Your task to perform on an android device: check out phone information Image 0: 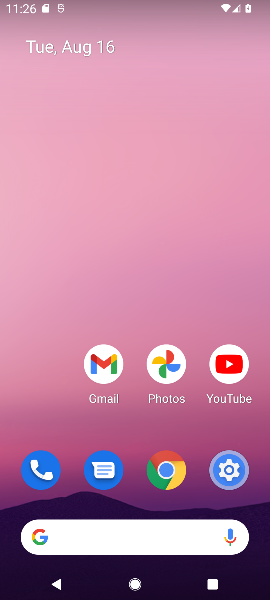
Step 0: drag from (41, 391) to (53, 0)
Your task to perform on an android device: check out phone information Image 1: 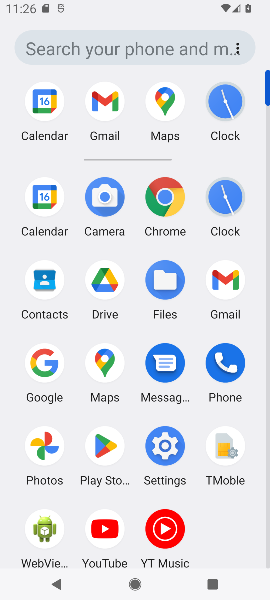
Step 1: click (223, 368)
Your task to perform on an android device: check out phone information Image 2: 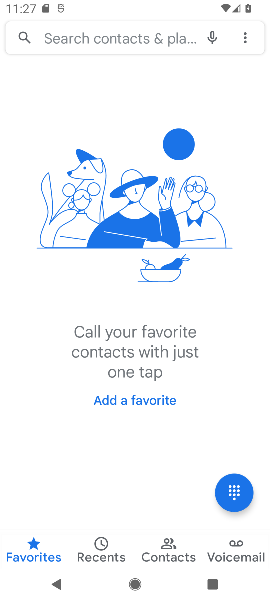
Step 2: click (246, 34)
Your task to perform on an android device: check out phone information Image 3: 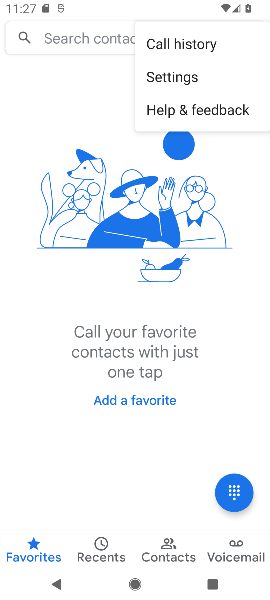
Step 3: click (200, 73)
Your task to perform on an android device: check out phone information Image 4: 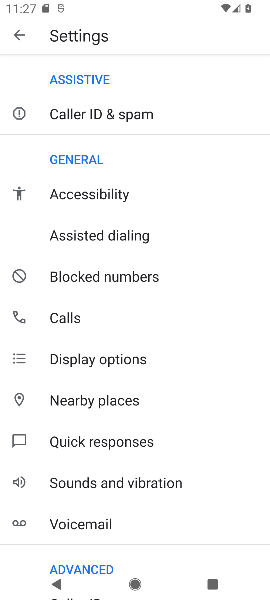
Step 4: drag from (198, 457) to (211, 27)
Your task to perform on an android device: check out phone information Image 5: 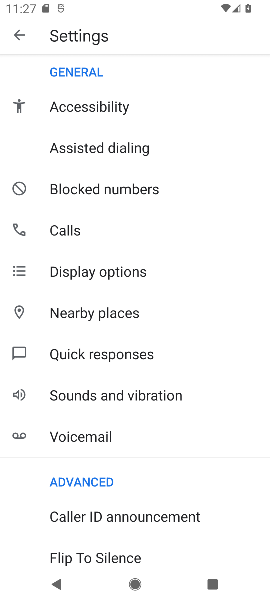
Step 5: drag from (180, 112) to (192, 457)
Your task to perform on an android device: check out phone information Image 6: 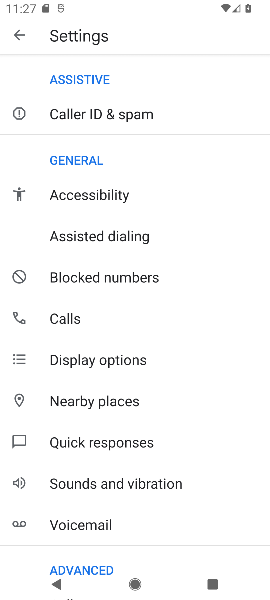
Step 6: click (112, 186)
Your task to perform on an android device: check out phone information Image 7: 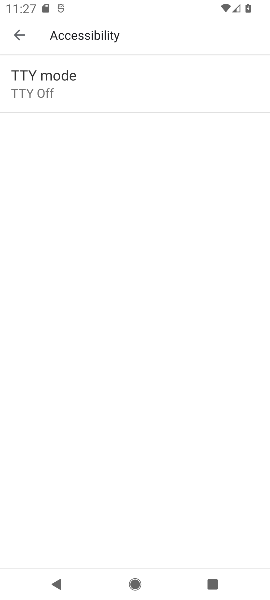
Step 7: click (19, 32)
Your task to perform on an android device: check out phone information Image 8: 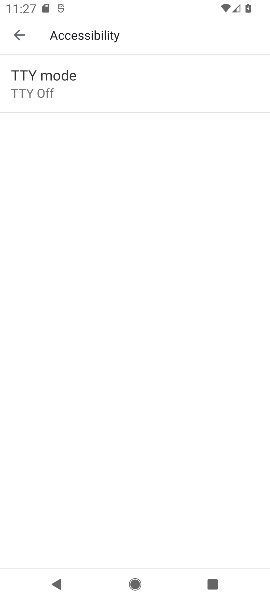
Step 8: click (19, 32)
Your task to perform on an android device: check out phone information Image 9: 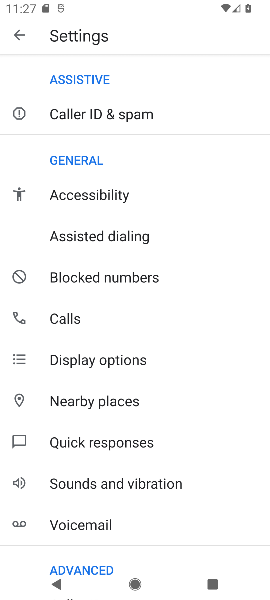
Step 9: task complete